Your task to perform on an android device: Open Youtube and go to "Your channel" Image 0: 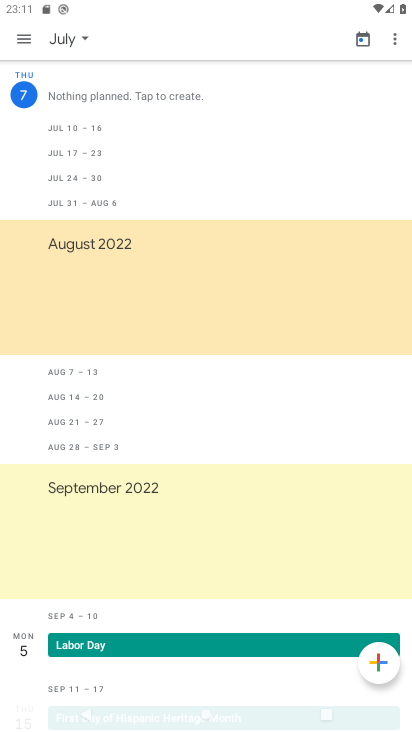
Step 0: press home button
Your task to perform on an android device: Open Youtube and go to "Your channel" Image 1: 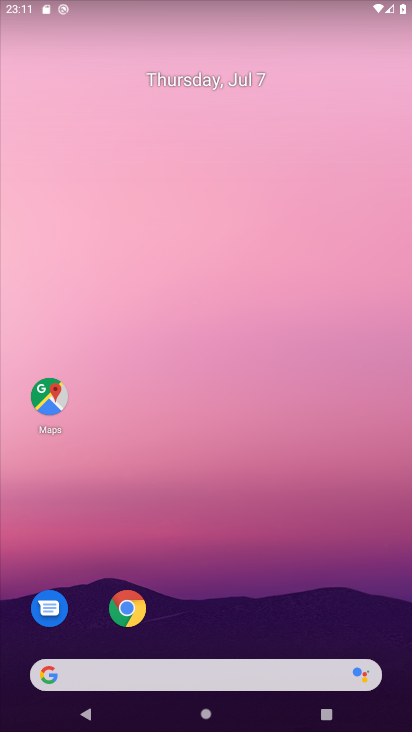
Step 1: drag from (204, 611) to (177, 201)
Your task to perform on an android device: Open Youtube and go to "Your channel" Image 2: 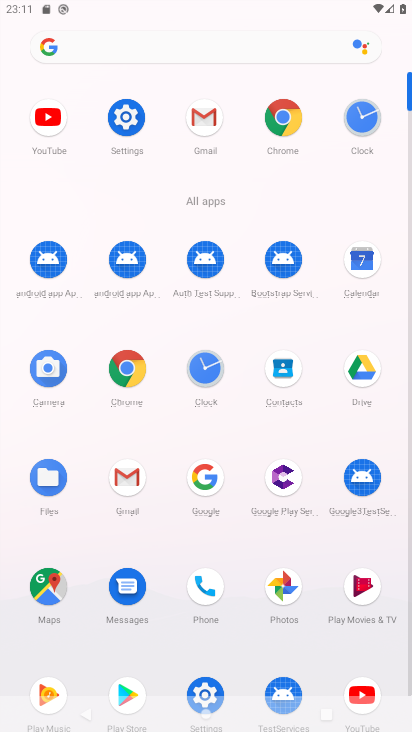
Step 2: drag from (302, 592) to (282, 271)
Your task to perform on an android device: Open Youtube and go to "Your channel" Image 3: 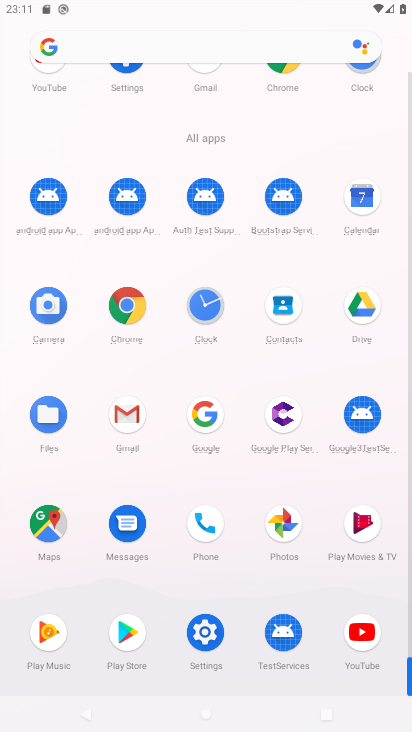
Step 3: click (367, 634)
Your task to perform on an android device: Open Youtube and go to "Your channel" Image 4: 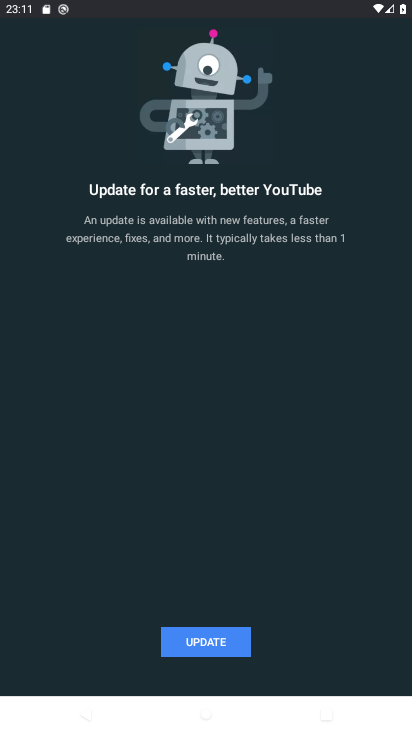
Step 4: task complete